Your task to perform on an android device: What's on my calendar tomorrow? Image 0: 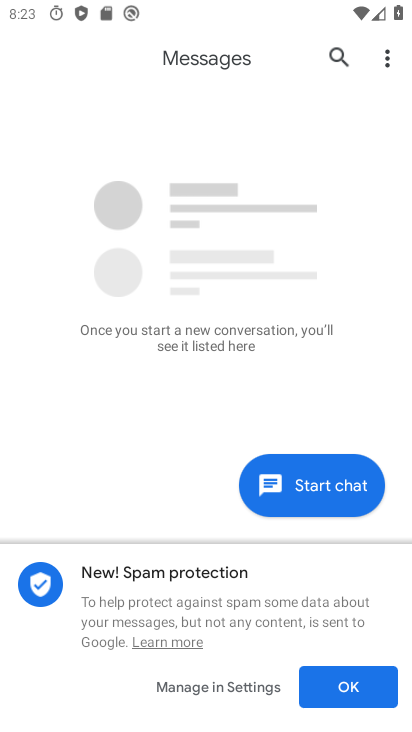
Step 0: press back button
Your task to perform on an android device: What's on my calendar tomorrow? Image 1: 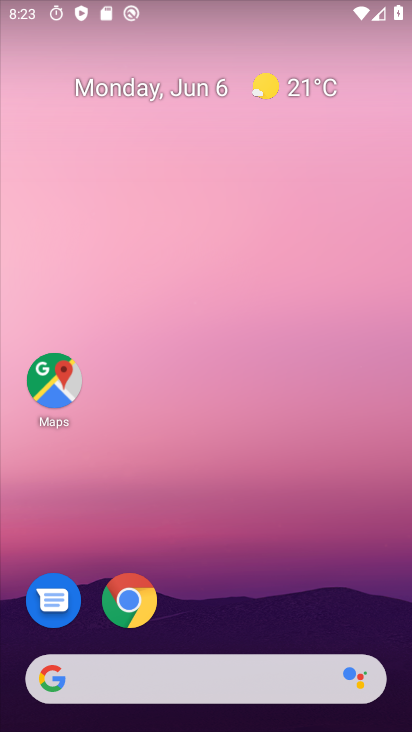
Step 1: drag from (264, 572) to (245, 14)
Your task to perform on an android device: What's on my calendar tomorrow? Image 2: 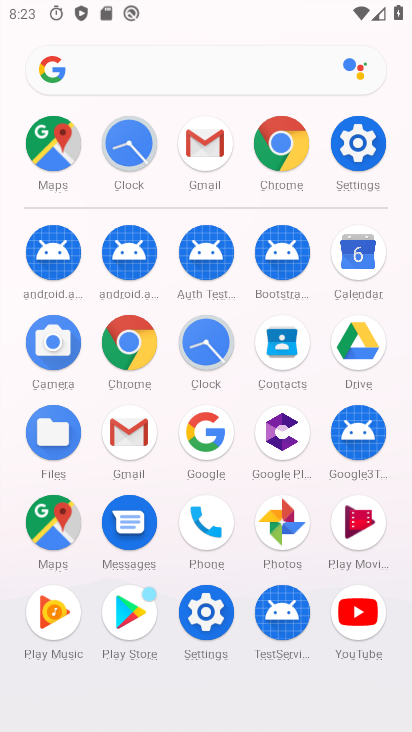
Step 2: drag from (6, 581) to (5, 220)
Your task to perform on an android device: What's on my calendar tomorrow? Image 3: 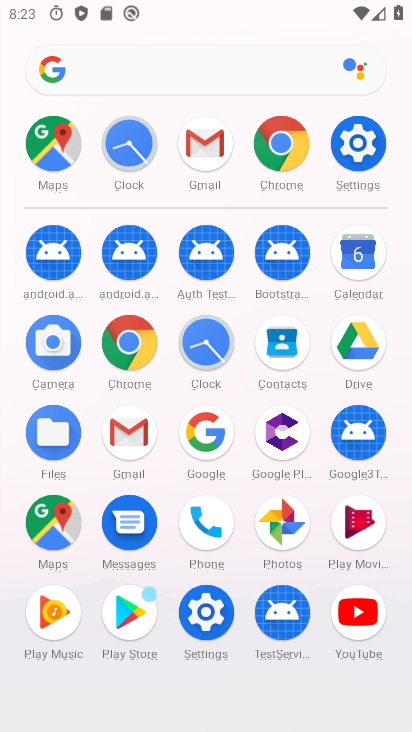
Step 3: click (356, 246)
Your task to perform on an android device: What's on my calendar tomorrow? Image 4: 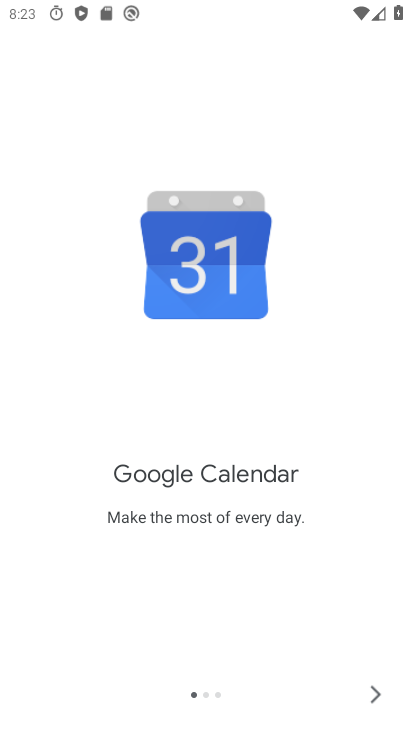
Step 4: click (387, 691)
Your task to perform on an android device: What's on my calendar tomorrow? Image 5: 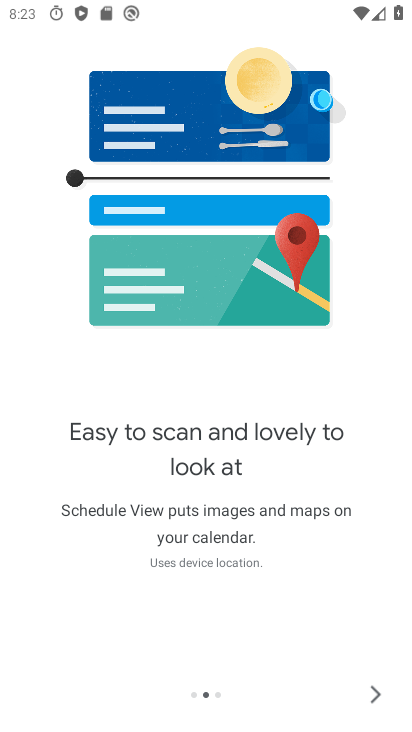
Step 5: click (379, 686)
Your task to perform on an android device: What's on my calendar tomorrow? Image 6: 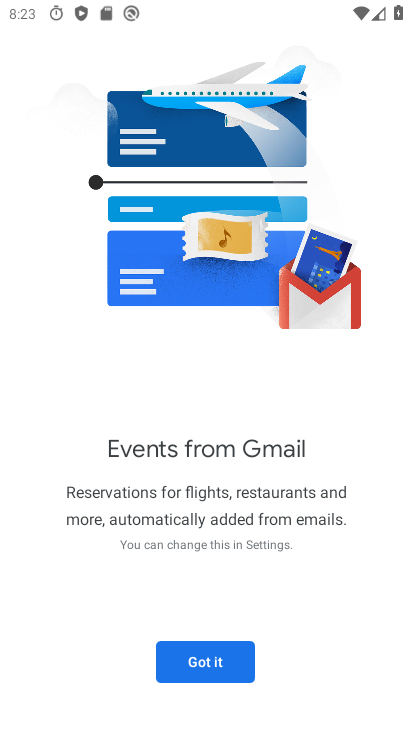
Step 6: click (205, 668)
Your task to perform on an android device: What's on my calendar tomorrow? Image 7: 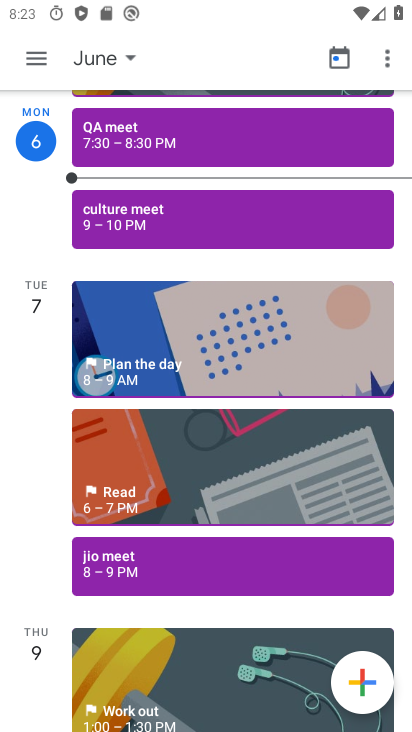
Step 7: click (93, 59)
Your task to perform on an android device: What's on my calendar tomorrow? Image 8: 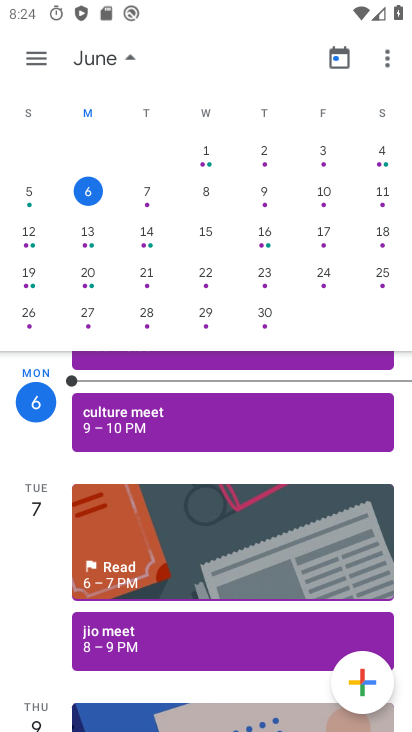
Step 8: click (146, 190)
Your task to perform on an android device: What's on my calendar tomorrow? Image 9: 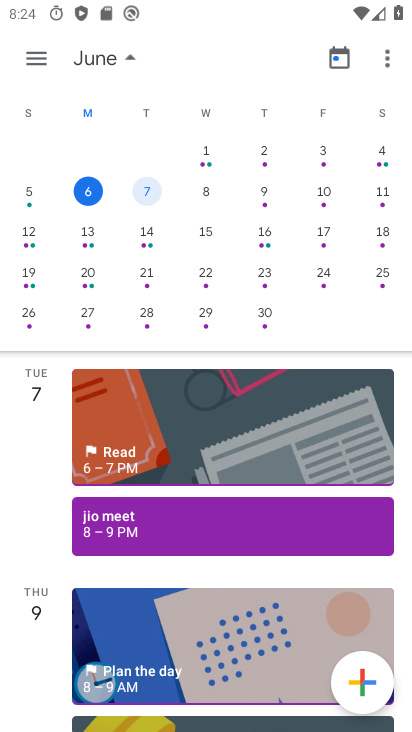
Step 9: click (43, 60)
Your task to perform on an android device: What's on my calendar tomorrow? Image 10: 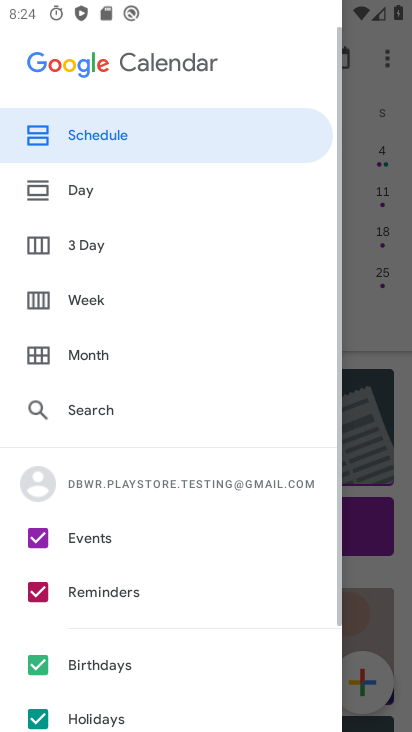
Step 10: click (86, 185)
Your task to perform on an android device: What's on my calendar tomorrow? Image 11: 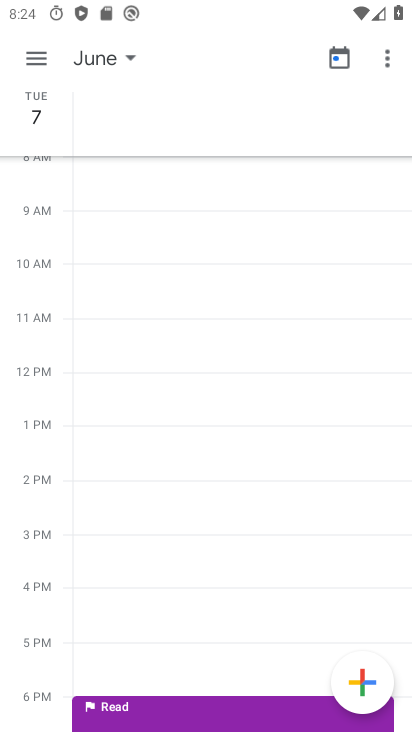
Step 11: task complete